Your task to perform on an android device: Add "macbook pro 15 inch" to the cart on costco.com Image 0: 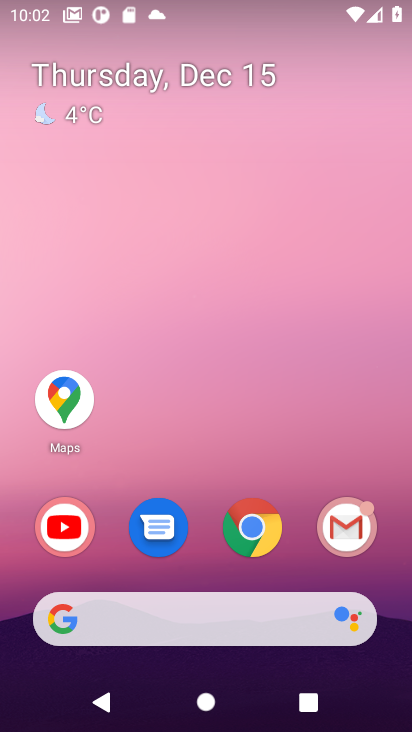
Step 0: click (262, 523)
Your task to perform on an android device: Add "macbook pro 15 inch" to the cart on costco.com Image 1: 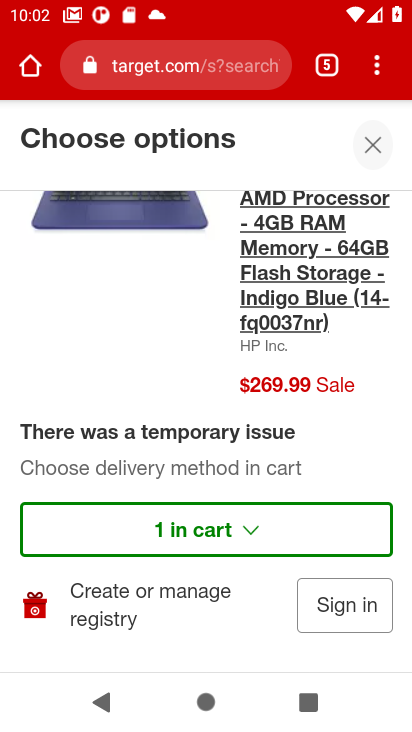
Step 1: click (127, 88)
Your task to perform on an android device: Add "macbook pro 15 inch" to the cart on costco.com Image 2: 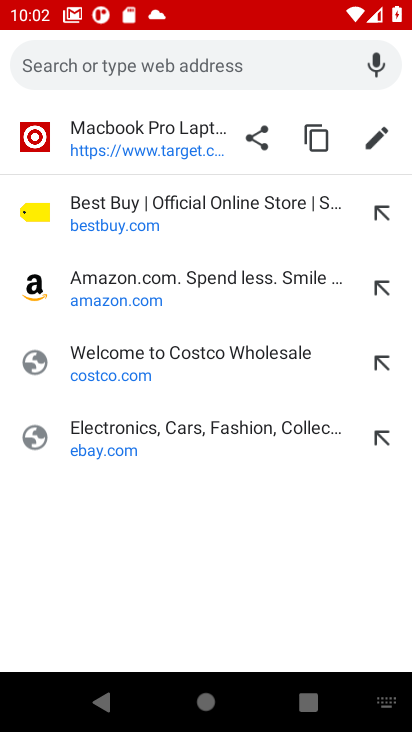
Step 2: type "costco.com"
Your task to perform on an android device: Add "macbook pro 15 inch" to the cart on costco.com Image 3: 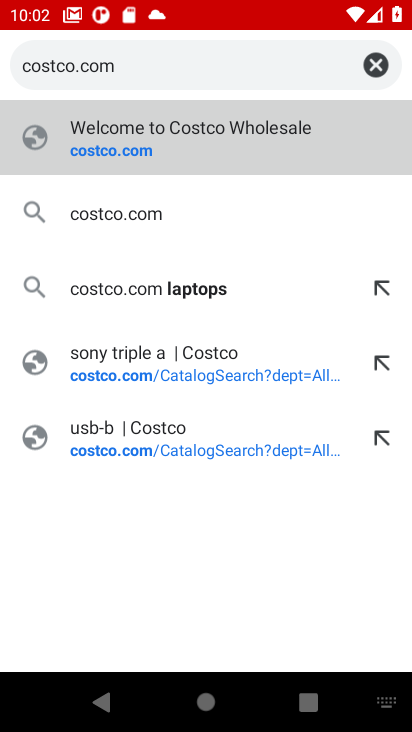
Step 3: click (191, 129)
Your task to perform on an android device: Add "macbook pro 15 inch" to the cart on costco.com Image 4: 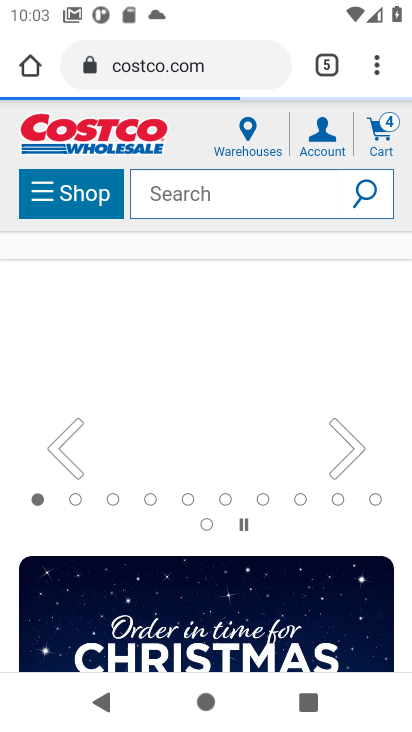
Step 4: click (225, 206)
Your task to perform on an android device: Add "macbook pro 15 inch" to the cart on costco.com Image 5: 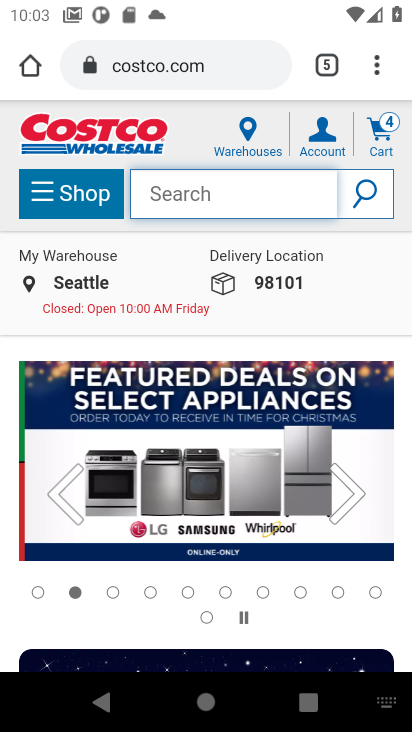
Step 5: type "macbook pro 15"
Your task to perform on an android device: Add "macbook pro 15 inch" to the cart on costco.com Image 6: 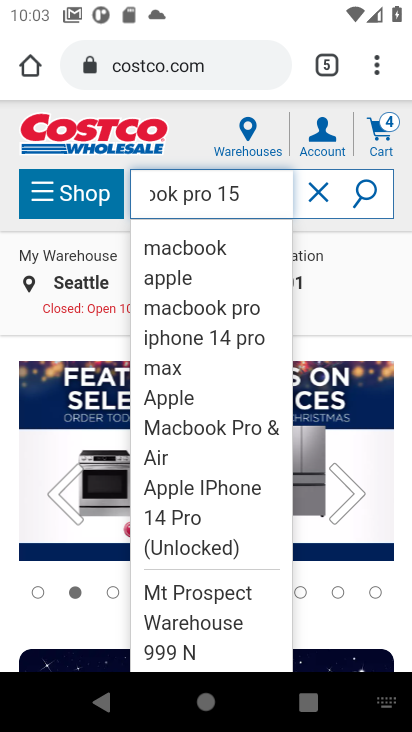
Step 6: click (343, 194)
Your task to perform on an android device: Add "macbook pro 15 inch" to the cart on costco.com Image 7: 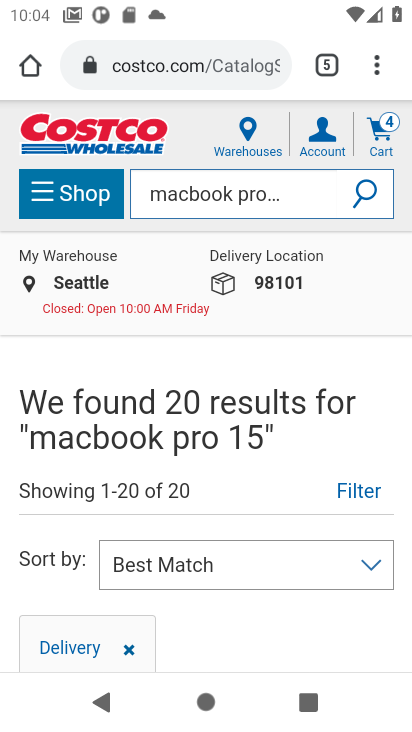
Step 7: task complete